Your task to perform on an android device: Show me popular videos on Youtube Image 0: 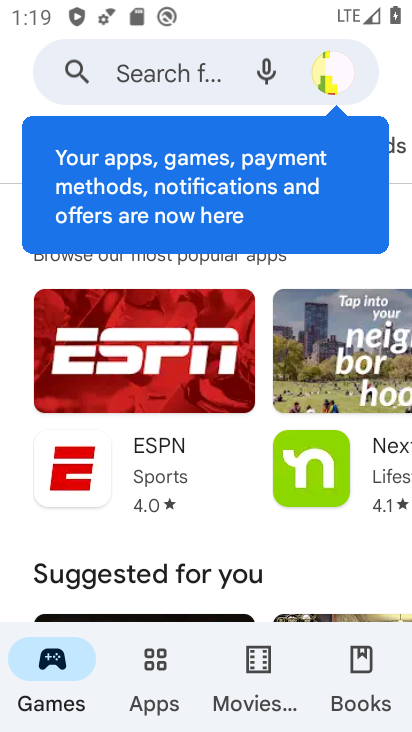
Step 0: press home button
Your task to perform on an android device: Show me popular videos on Youtube Image 1: 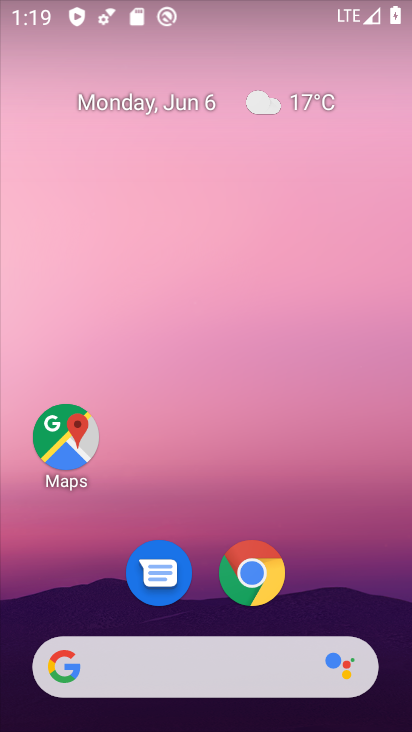
Step 1: drag from (353, 594) to (378, 216)
Your task to perform on an android device: Show me popular videos on Youtube Image 2: 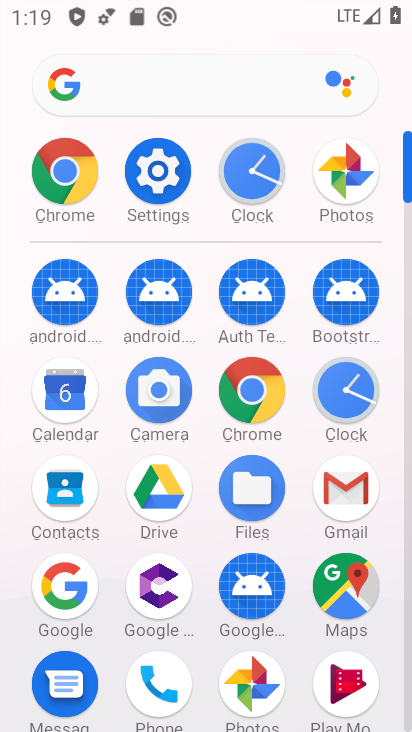
Step 2: drag from (386, 546) to (394, 272)
Your task to perform on an android device: Show me popular videos on Youtube Image 3: 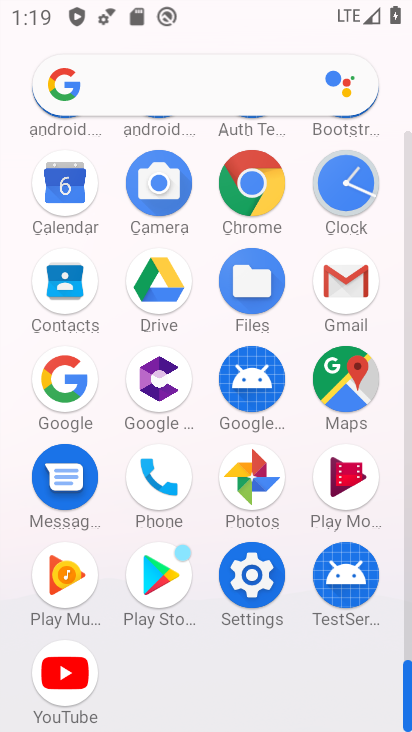
Step 3: click (72, 682)
Your task to perform on an android device: Show me popular videos on Youtube Image 4: 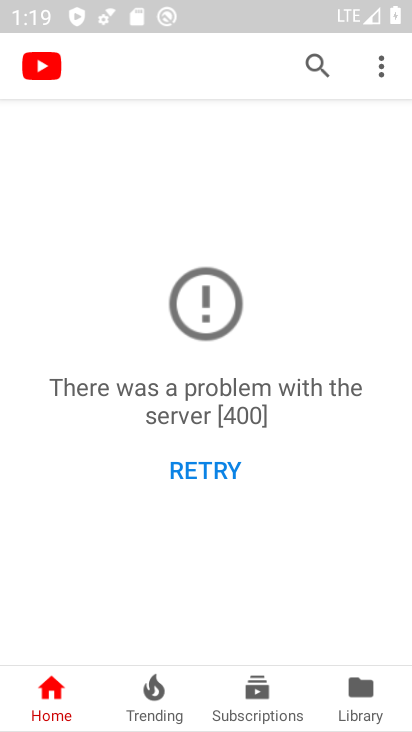
Step 4: task complete